Your task to perform on an android device: Turn on the flashlight Image 0: 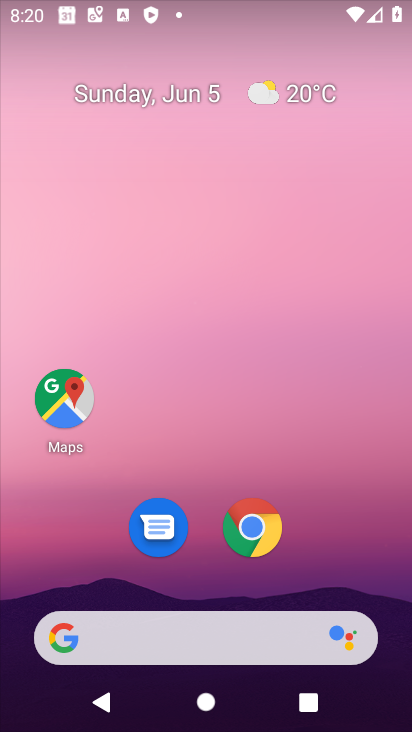
Step 0: drag from (206, 584) to (215, 114)
Your task to perform on an android device: Turn on the flashlight Image 1: 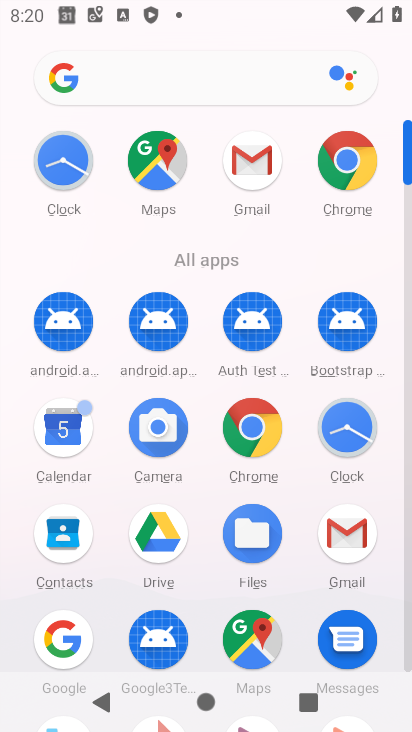
Step 1: drag from (281, 663) to (319, 89)
Your task to perform on an android device: Turn on the flashlight Image 2: 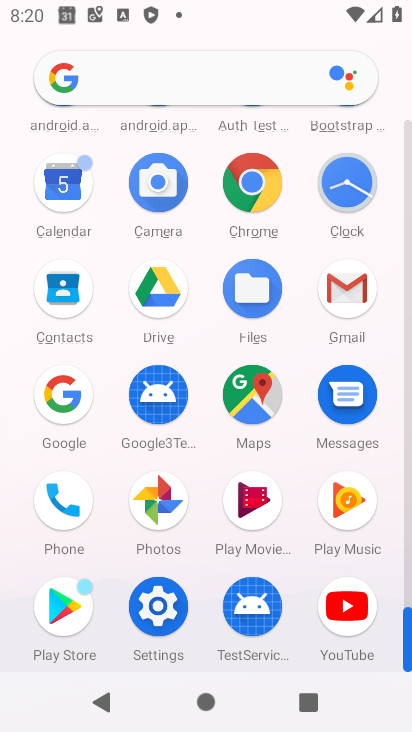
Step 2: click (170, 614)
Your task to perform on an android device: Turn on the flashlight Image 3: 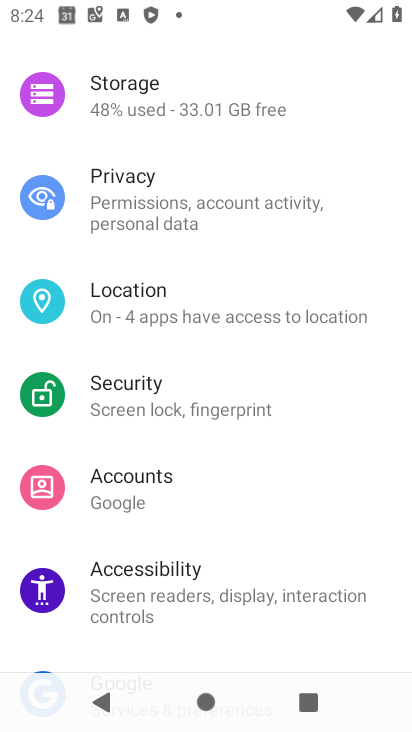
Step 3: task complete